Your task to perform on an android device: What's the weather today? Image 0: 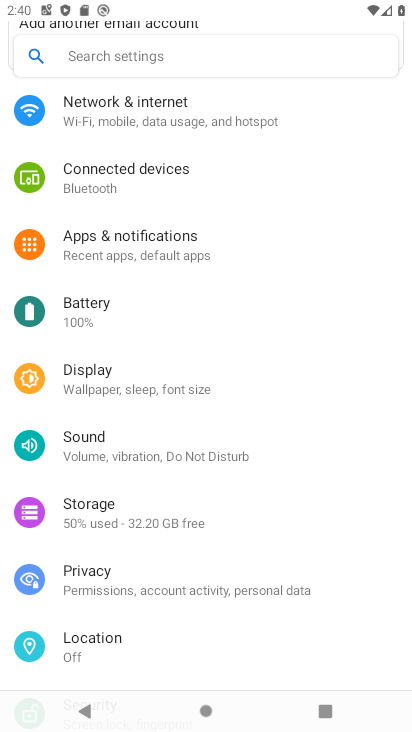
Step 0: press home button
Your task to perform on an android device: What's the weather today? Image 1: 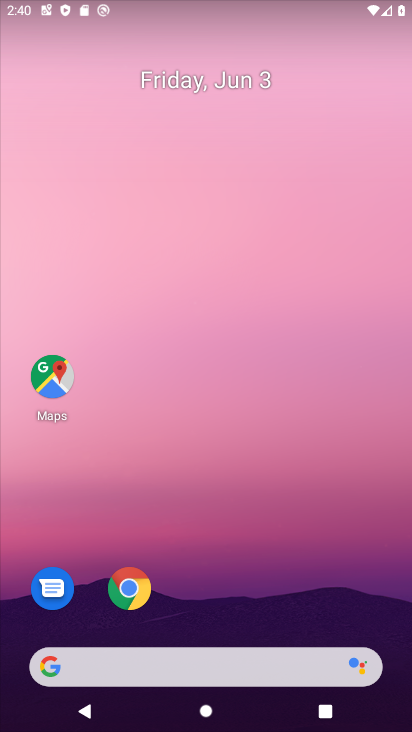
Step 1: drag from (243, 595) to (281, 154)
Your task to perform on an android device: What's the weather today? Image 2: 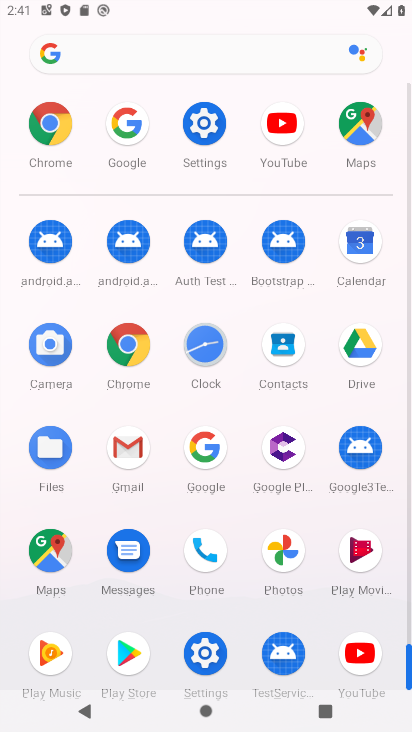
Step 2: click (199, 462)
Your task to perform on an android device: What's the weather today? Image 3: 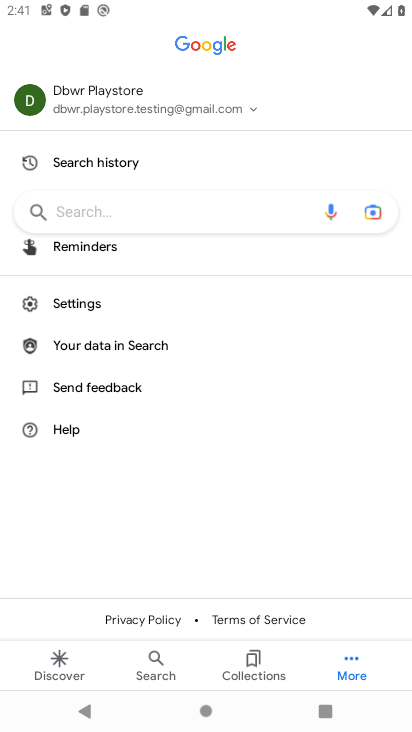
Step 3: click (54, 659)
Your task to perform on an android device: What's the weather today? Image 4: 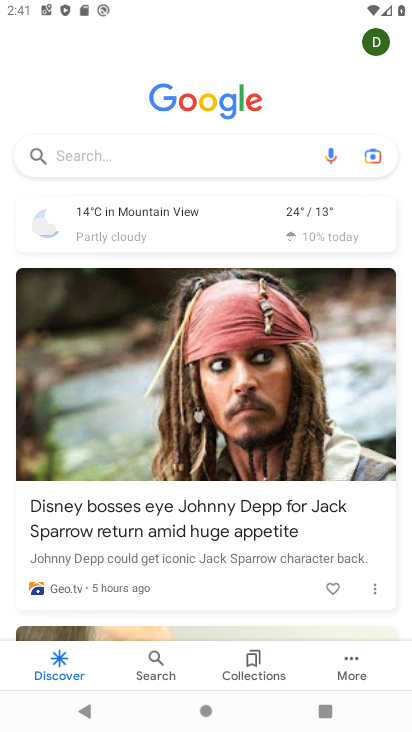
Step 4: click (162, 215)
Your task to perform on an android device: What's the weather today? Image 5: 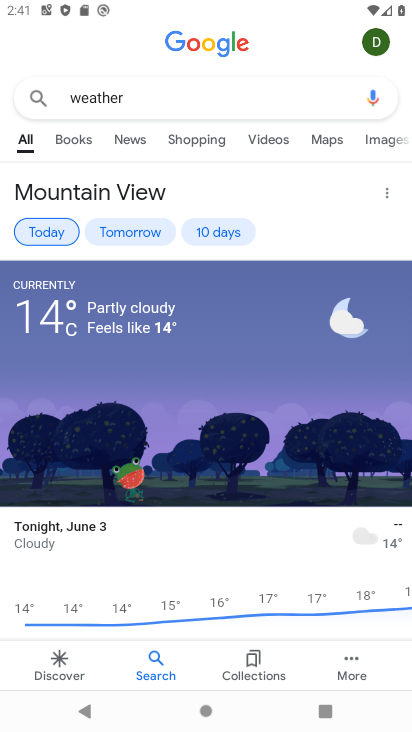
Step 5: task complete